Your task to perform on an android device: Go to battery settings Image 0: 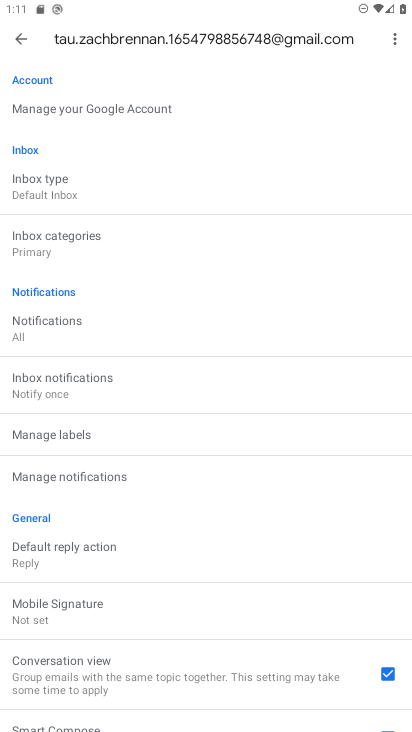
Step 0: drag from (314, 16) to (398, 642)
Your task to perform on an android device: Go to battery settings Image 1: 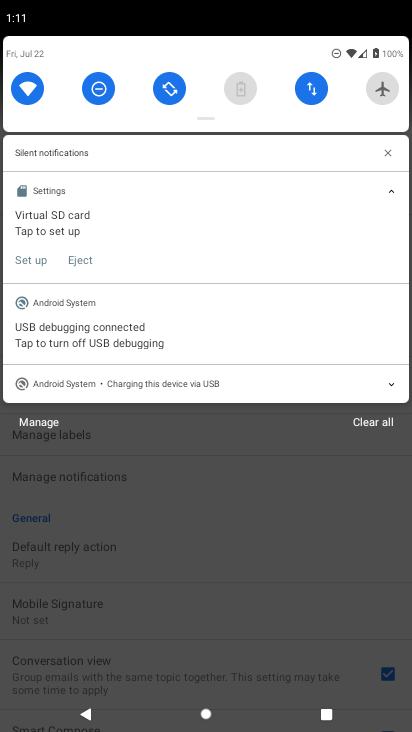
Step 1: click (250, 91)
Your task to perform on an android device: Go to battery settings Image 2: 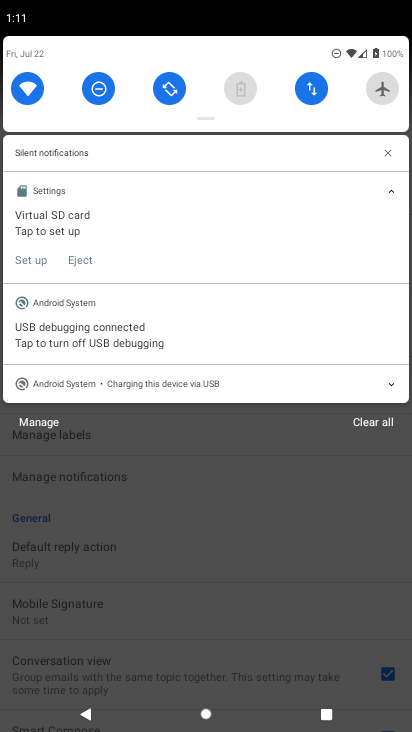
Step 2: click (250, 91)
Your task to perform on an android device: Go to battery settings Image 3: 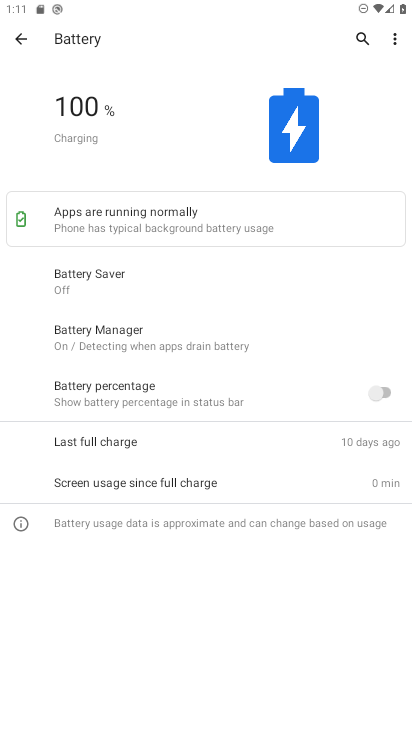
Step 3: task complete